Your task to perform on an android device: Open settings Image 0: 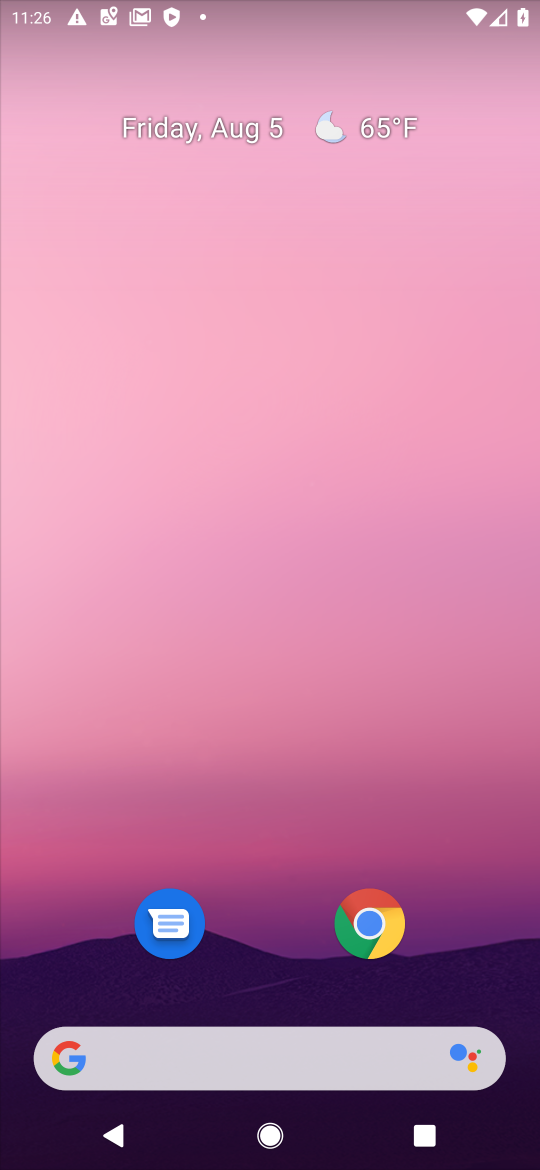
Step 0: drag from (283, 1044) to (255, 342)
Your task to perform on an android device: Open settings Image 1: 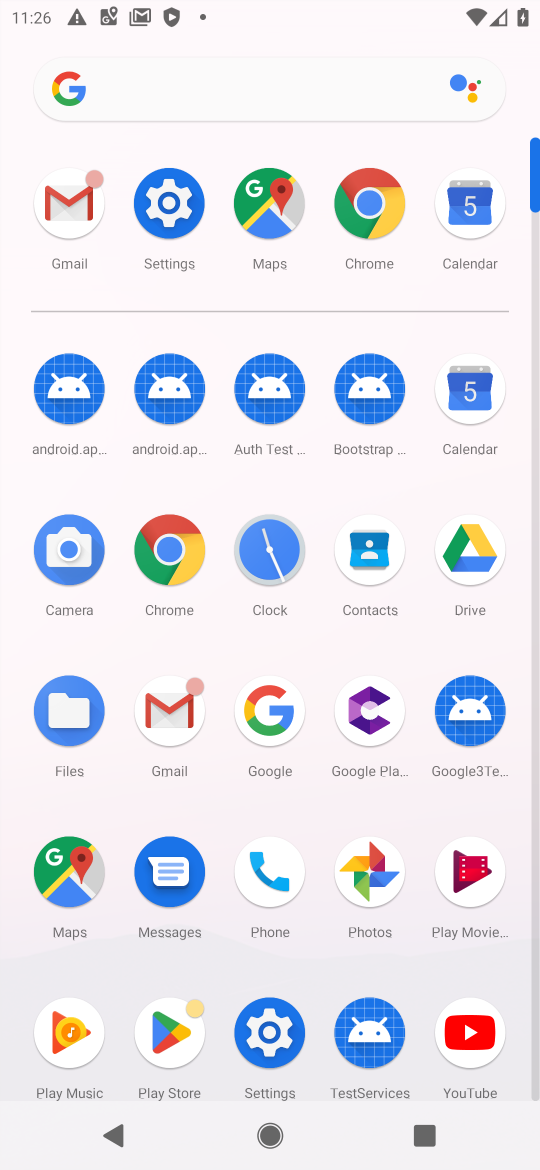
Step 1: click (150, 202)
Your task to perform on an android device: Open settings Image 2: 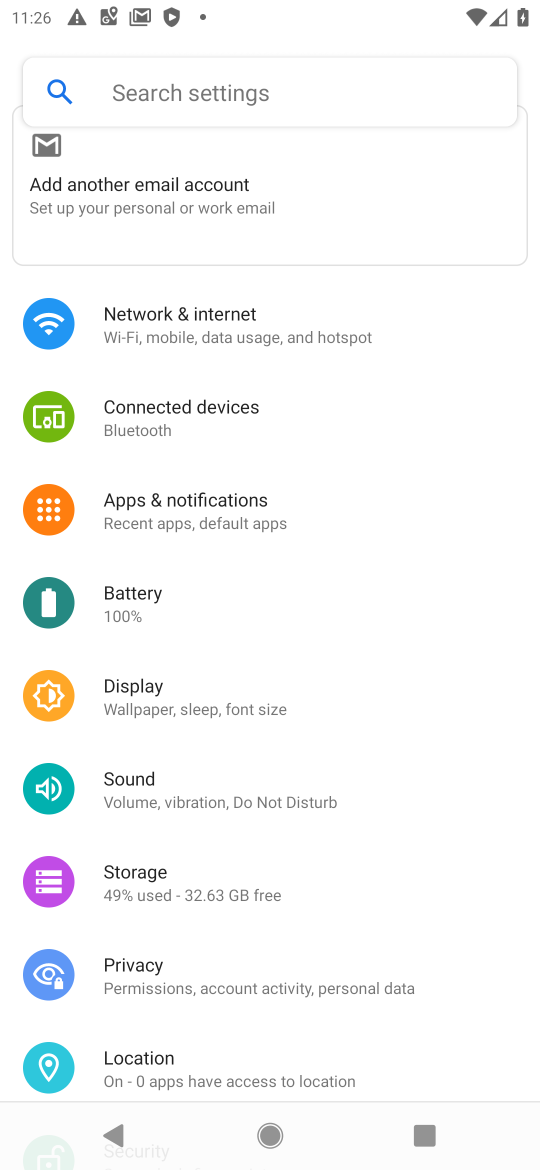
Step 2: task complete